Your task to perform on an android device: turn off priority inbox in the gmail app Image 0: 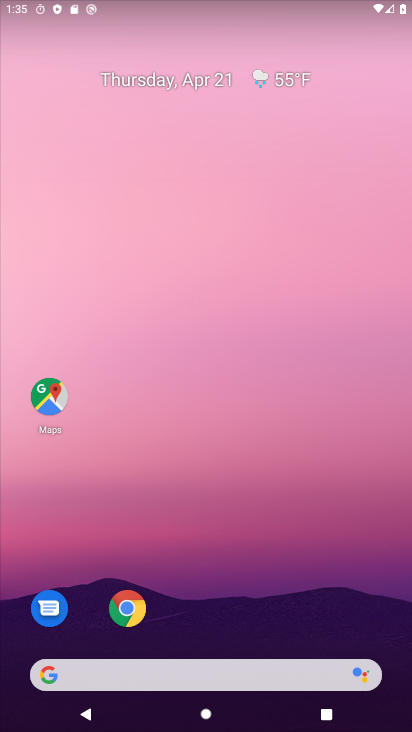
Step 0: drag from (170, 495) to (106, 100)
Your task to perform on an android device: turn off priority inbox in the gmail app Image 1: 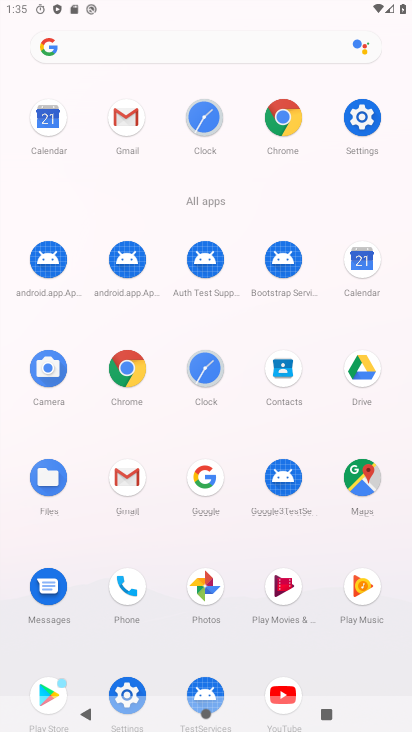
Step 1: click (122, 487)
Your task to perform on an android device: turn off priority inbox in the gmail app Image 2: 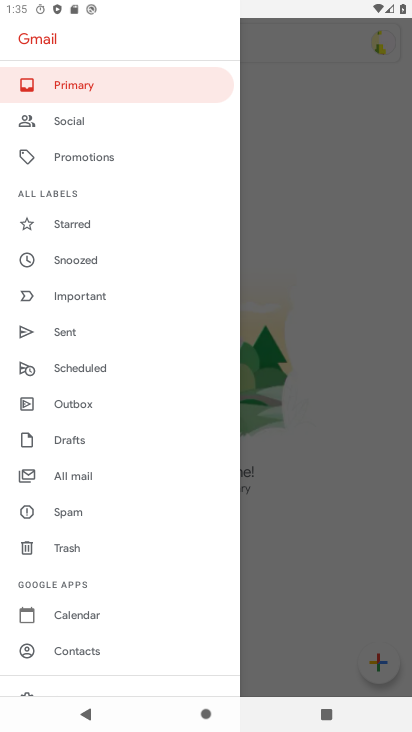
Step 2: drag from (81, 610) to (58, 360)
Your task to perform on an android device: turn off priority inbox in the gmail app Image 3: 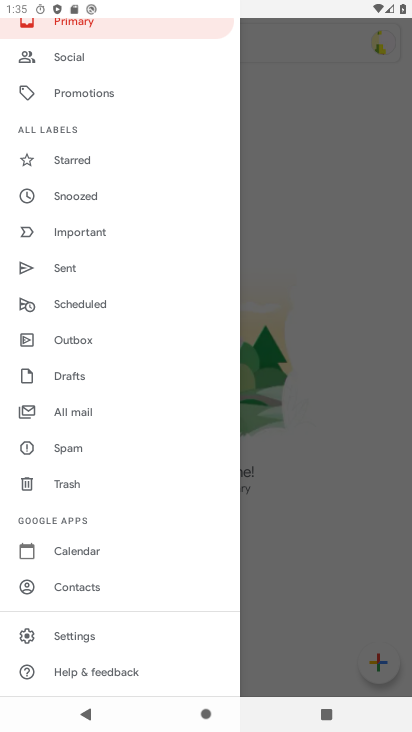
Step 3: click (59, 635)
Your task to perform on an android device: turn off priority inbox in the gmail app Image 4: 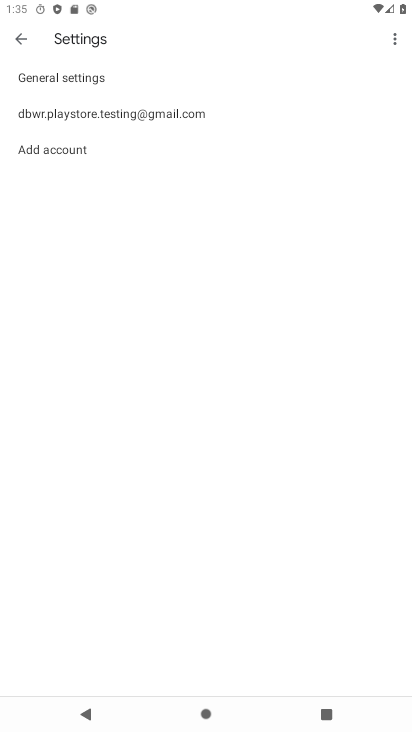
Step 4: click (50, 114)
Your task to perform on an android device: turn off priority inbox in the gmail app Image 5: 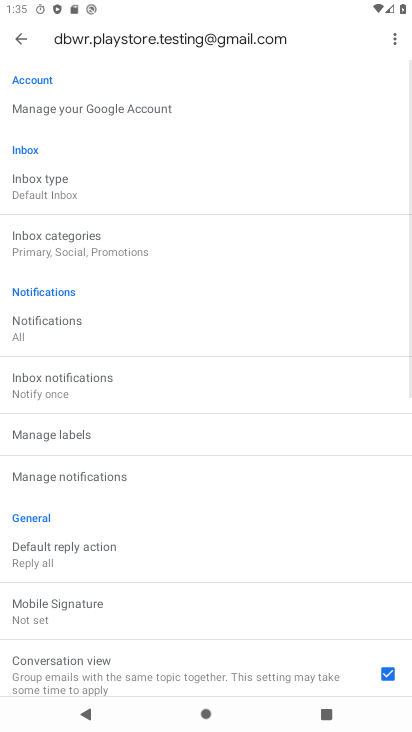
Step 5: click (54, 186)
Your task to perform on an android device: turn off priority inbox in the gmail app Image 6: 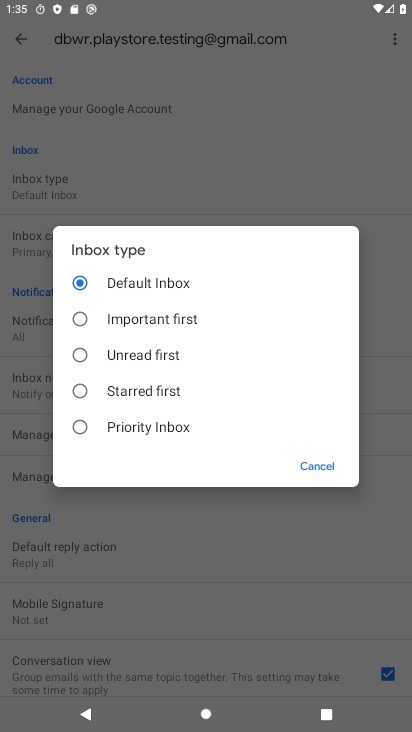
Step 6: task complete